Your task to perform on an android device: Open the Play Movies app and select the watchlist tab. Image 0: 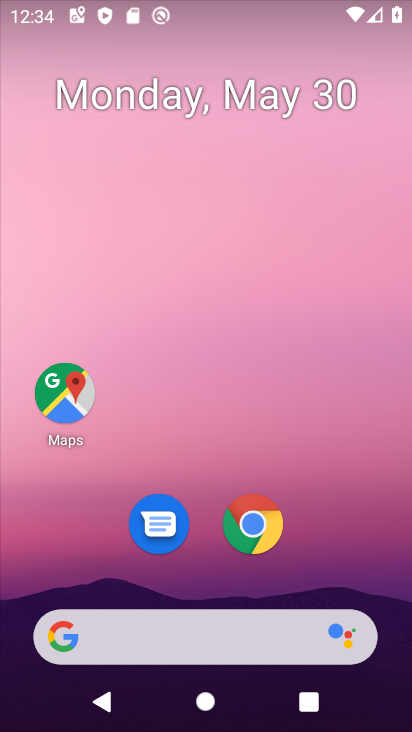
Step 0: drag from (331, 541) to (346, 0)
Your task to perform on an android device: Open the Play Movies app and select the watchlist tab. Image 1: 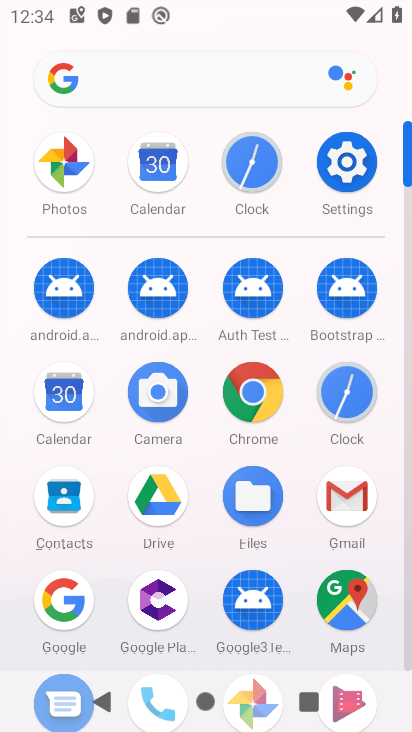
Step 1: drag from (335, 565) to (372, 292)
Your task to perform on an android device: Open the Play Movies app and select the watchlist tab. Image 2: 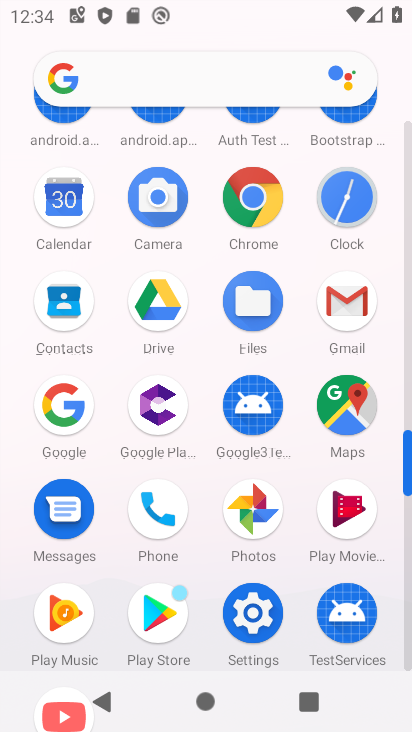
Step 2: click (349, 512)
Your task to perform on an android device: Open the Play Movies app and select the watchlist tab. Image 3: 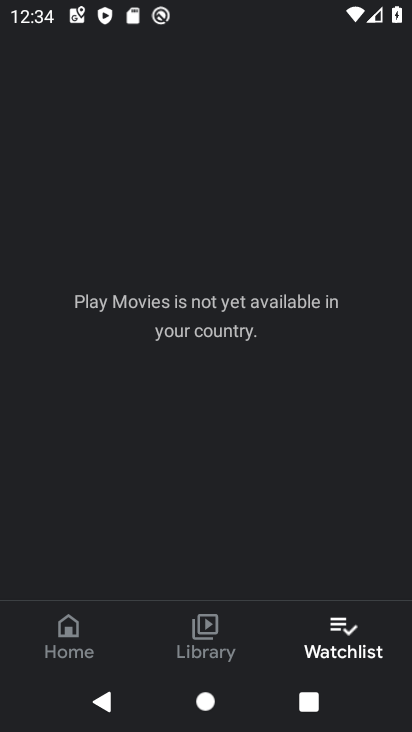
Step 3: click (358, 644)
Your task to perform on an android device: Open the Play Movies app and select the watchlist tab. Image 4: 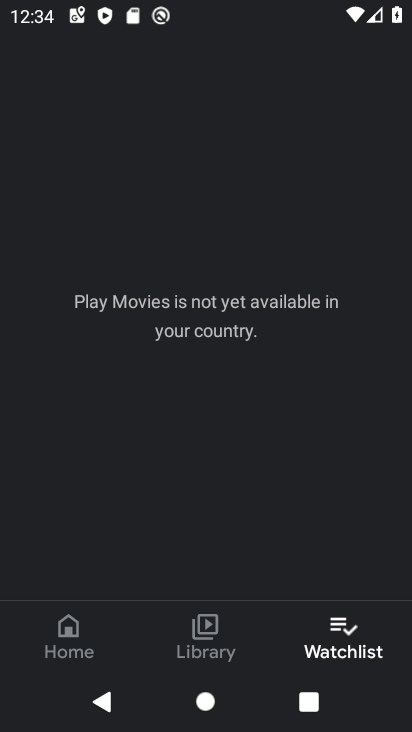
Step 4: task complete